Your task to perform on an android device: Add macbook pro 13 inch to the cart on target Image 0: 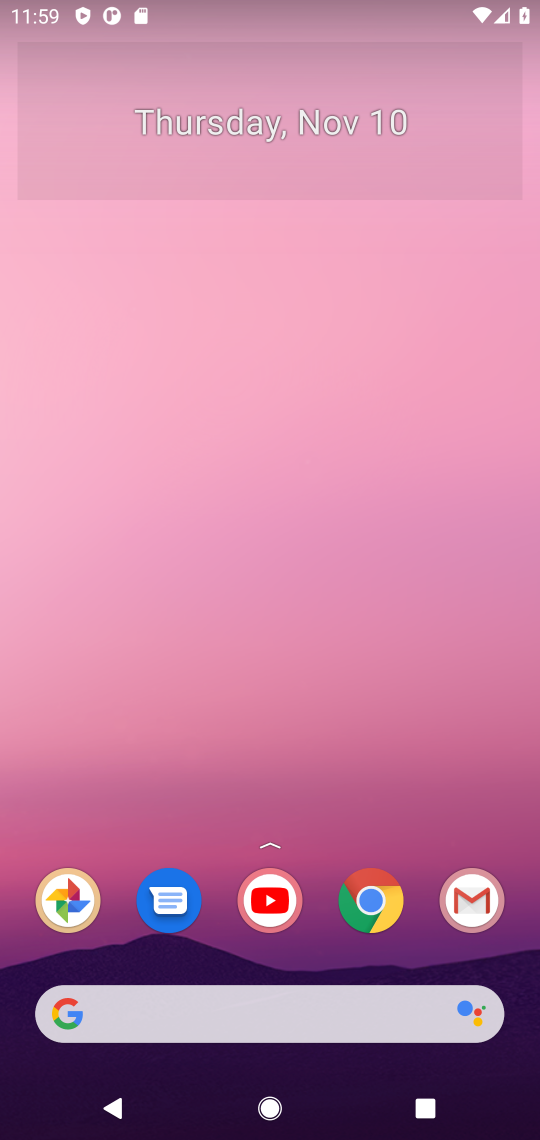
Step 0: press home button
Your task to perform on an android device: Add macbook pro 13 inch to the cart on target Image 1: 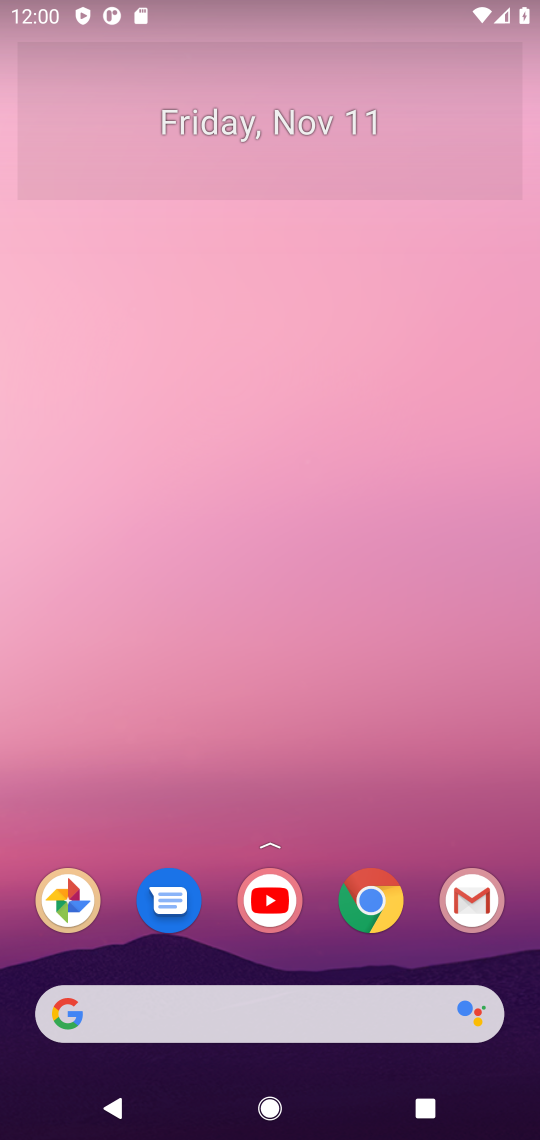
Step 1: click (373, 908)
Your task to perform on an android device: Add macbook pro 13 inch to the cart on target Image 2: 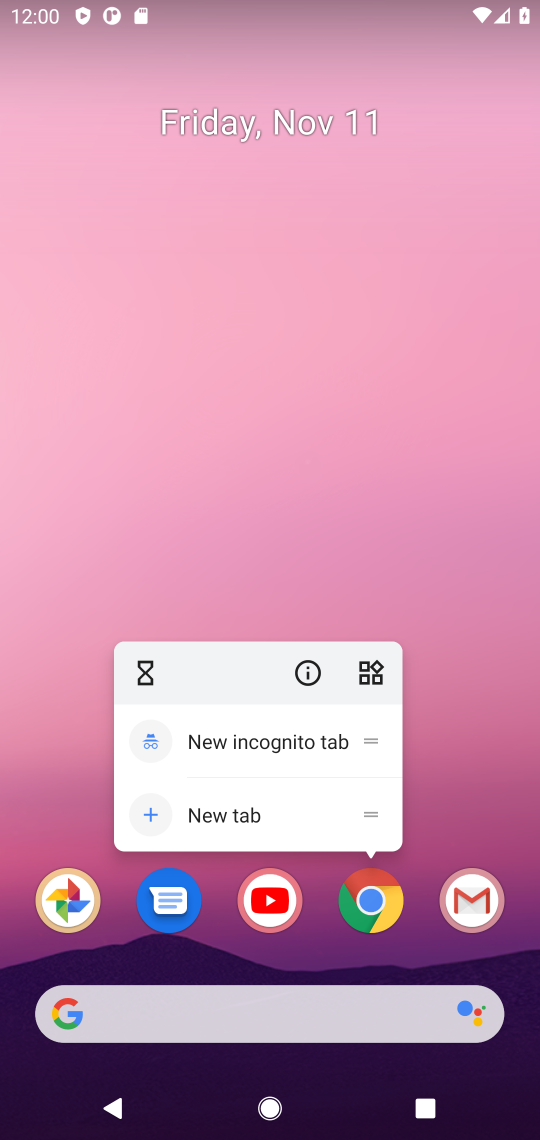
Step 2: click (373, 909)
Your task to perform on an android device: Add macbook pro 13 inch to the cart on target Image 3: 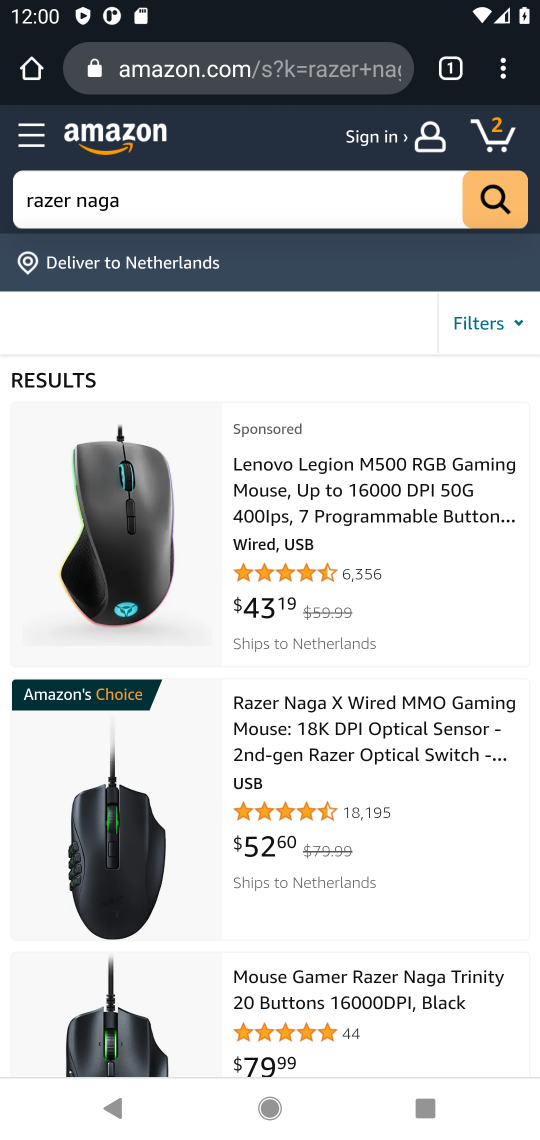
Step 3: click (282, 58)
Your task to perform on an android device: Add macbook pro 13 inch to the cart on target Image 4: 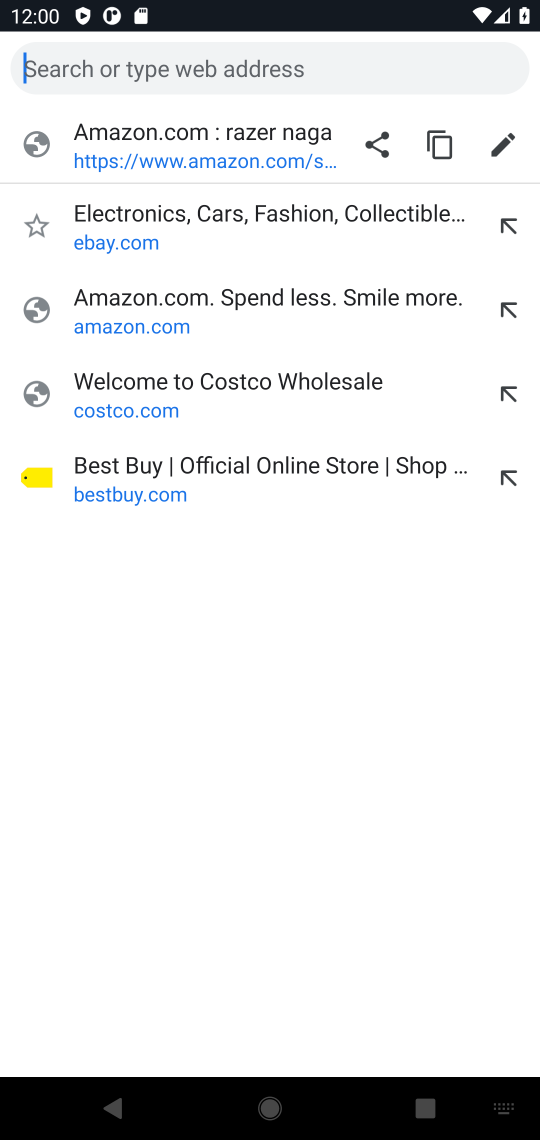
Step 4: type " target"
Your task to perform on an android device: Add macbook pro 13 inch to the cart on target Image 5: 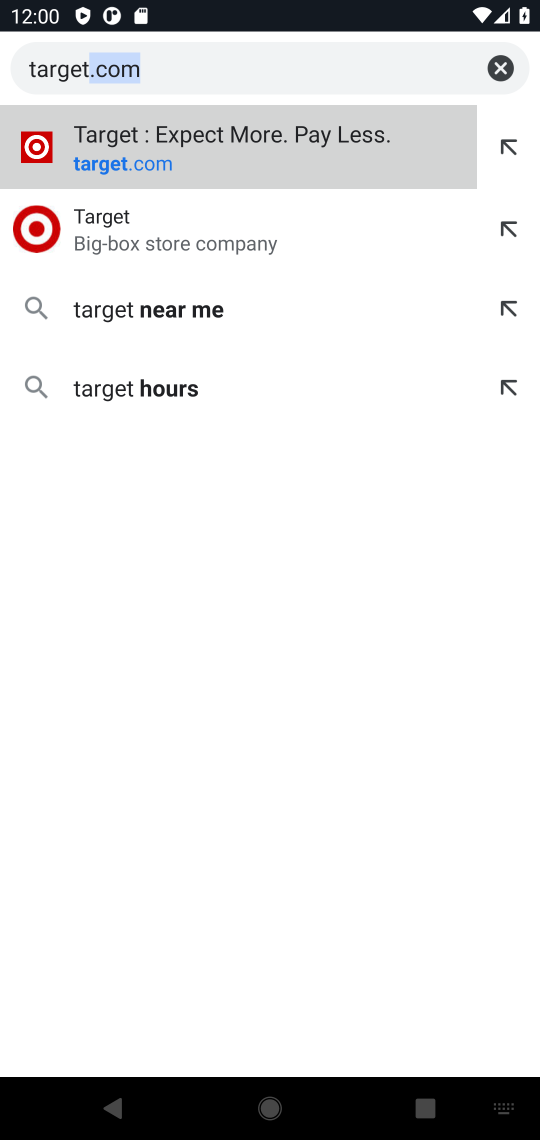
Step 5: press enter
Your task to perform on an android device: Add macbook pro 13 inch to the cart on target Image 6: 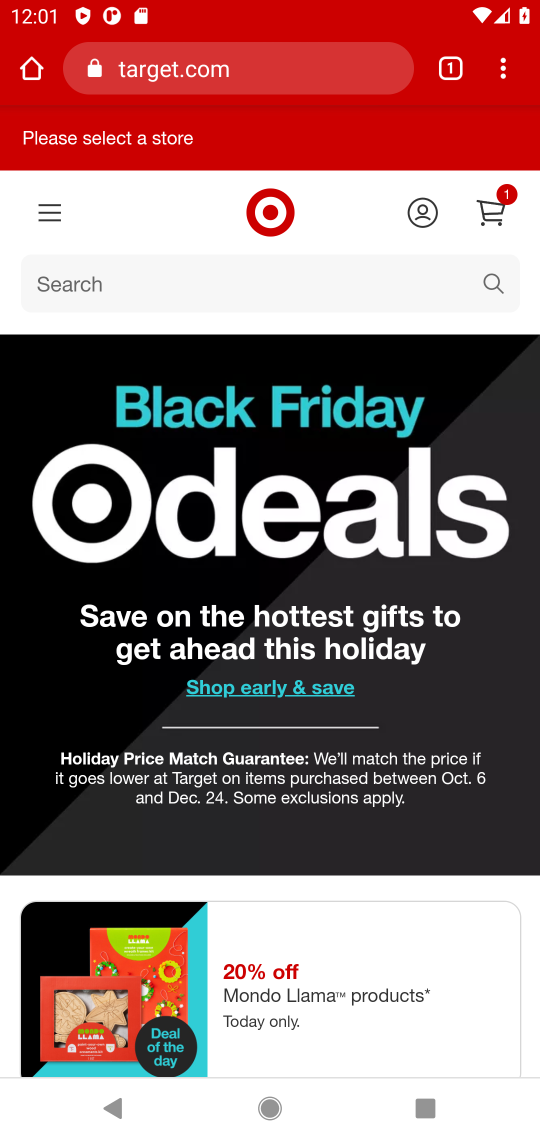
Step 6: click (163, 272)
Your task to perform on an android device: Add macbook pro 13 inch to the cart on target Image 7: 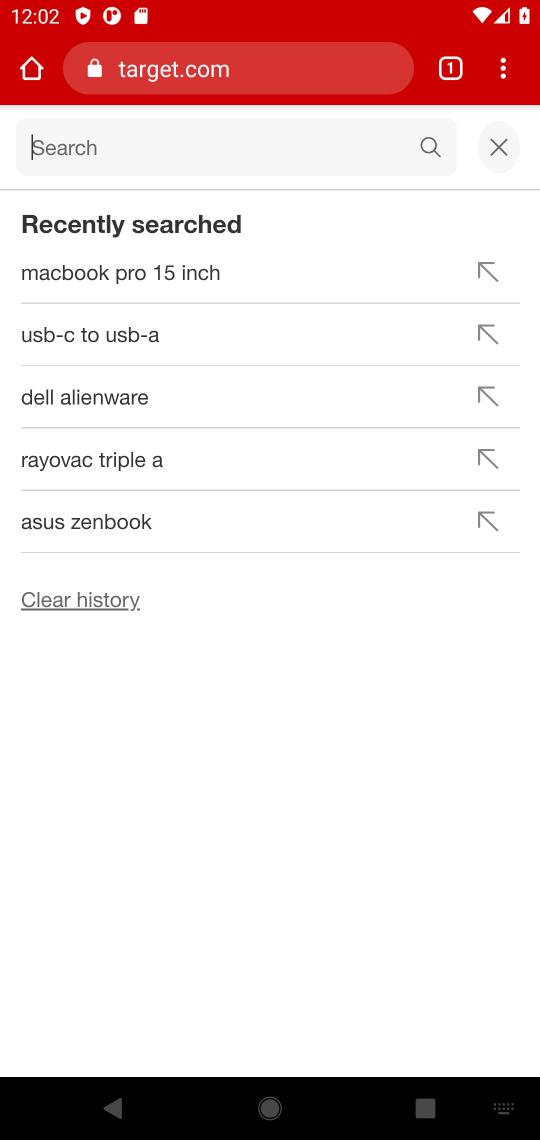
Step 7: type "macbook pro 13 inch"
Your task to perform on an android device: Add macbook pro 13 inch to the cart on target Image 8: 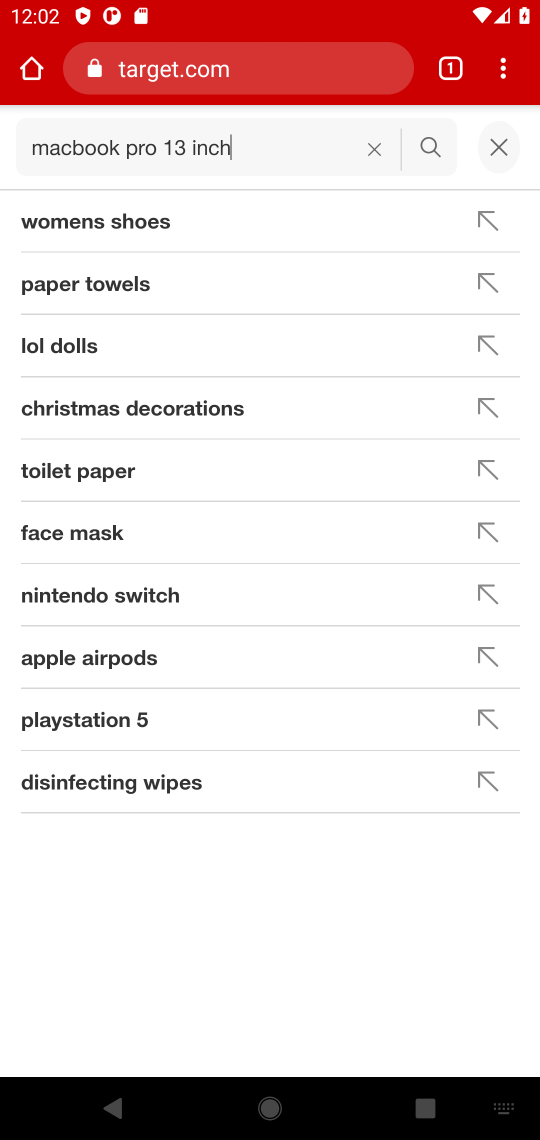
Step 8: press enter
Your task to perform on an android device: Add macbook pro 13 inch to the cart on target Image 9: 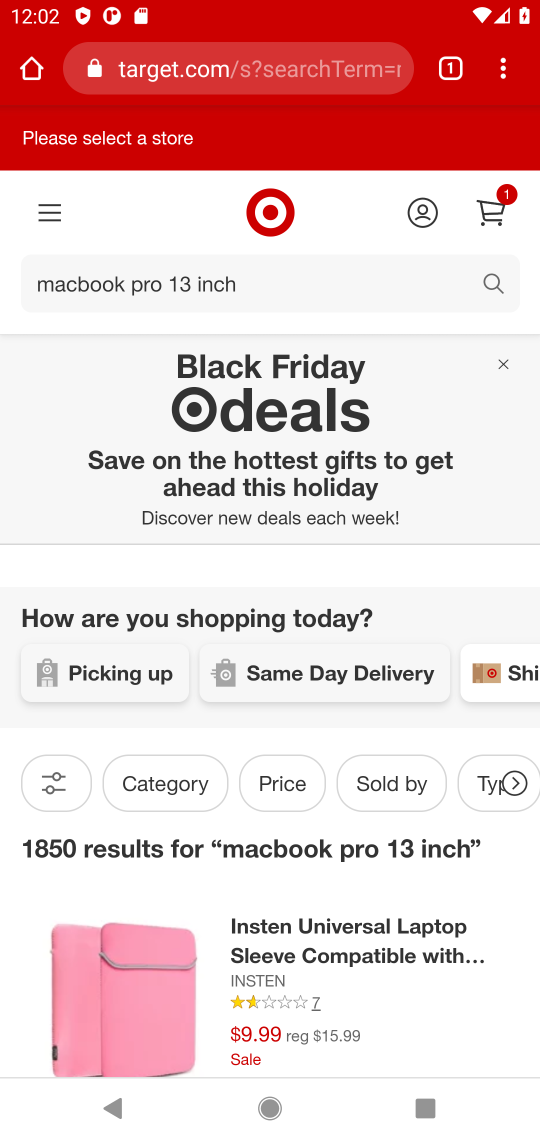
Step 9: task complete